Your task to perform on an android device: Open Google Chrome and open the bookmarks view Image 0: 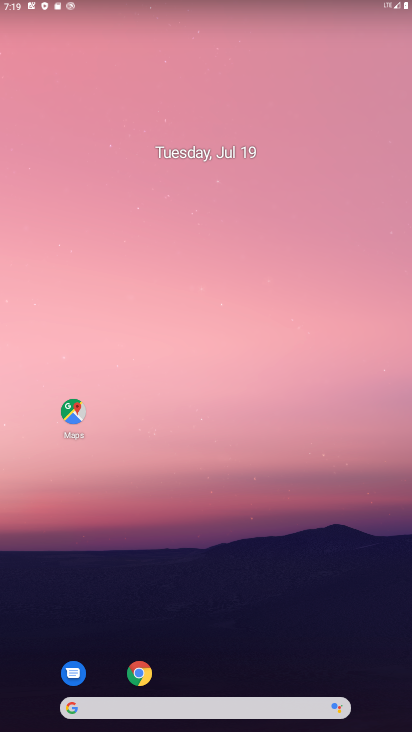
Step 0: drag from (370, 711) to (289, 36)
Your task to perform on an android device: Open Google Chrome and open the bookmarks view Image 1: 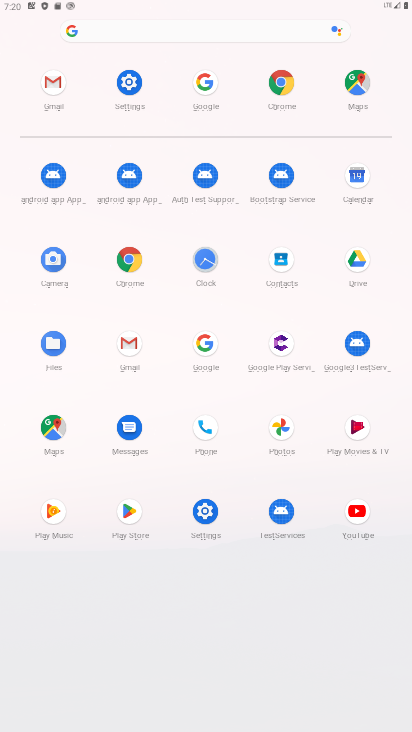
Step 1: click (136, 272)
Your task to perform on an android device: Open Google Chrome and open the bookmarks view Image 2: 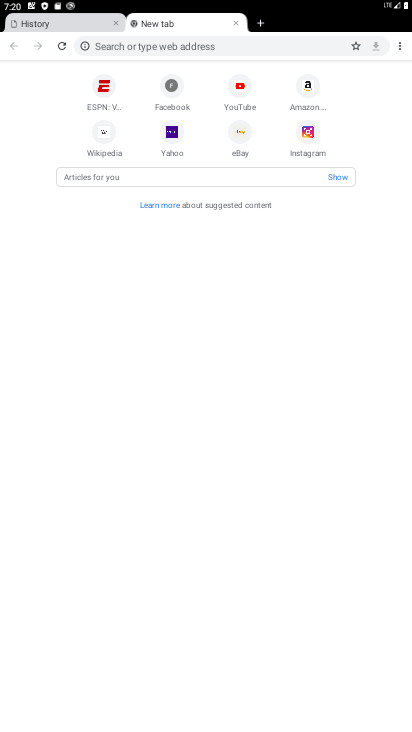
Step 2: click (398, 46)
Your task to perform on an android device: Open Google Chrome and open the bookmarks view Image 3: 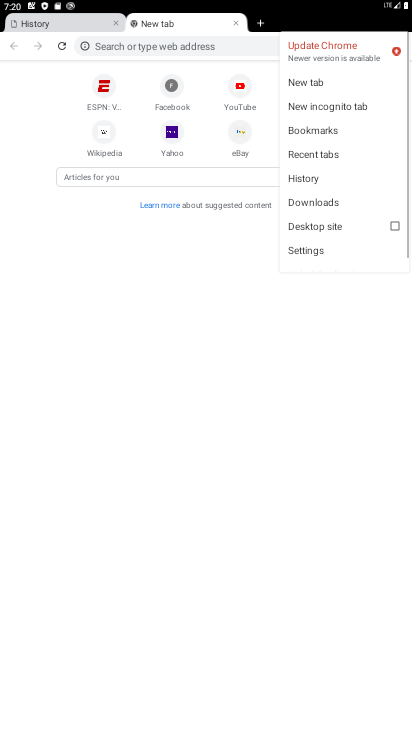
Step 3: click (334, 125)
Your task to perform on an android device: Open Google Chrome and open the bookmarks view Image 4: 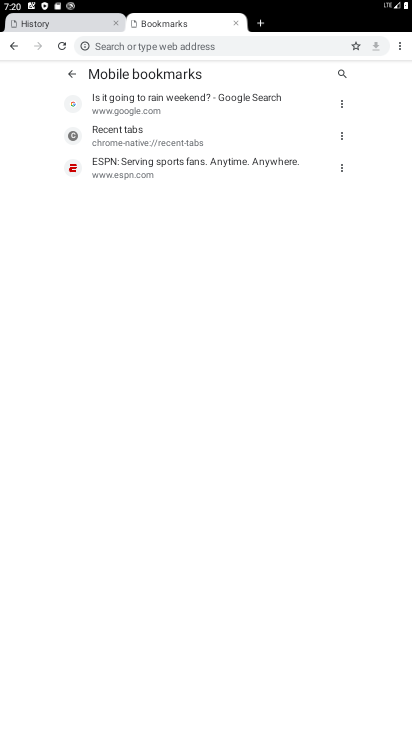
Step 4: task complete